Your task to perform on an android device: open a new tab in the chrome app Image 0: 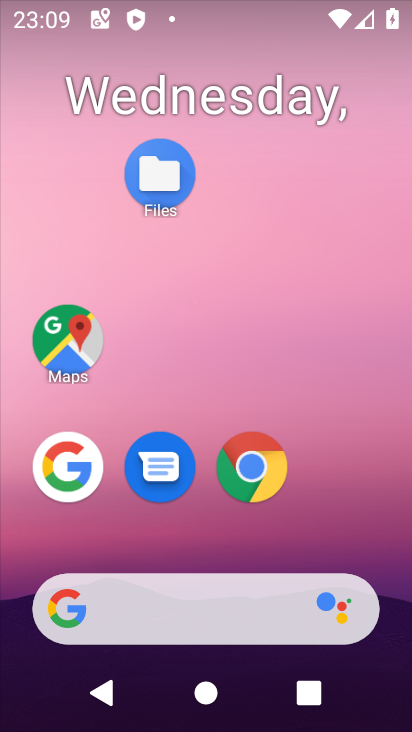
Step 0: click (263, 477)
Your task to perform on an android device: open a new tab in the chrome app Image 1: 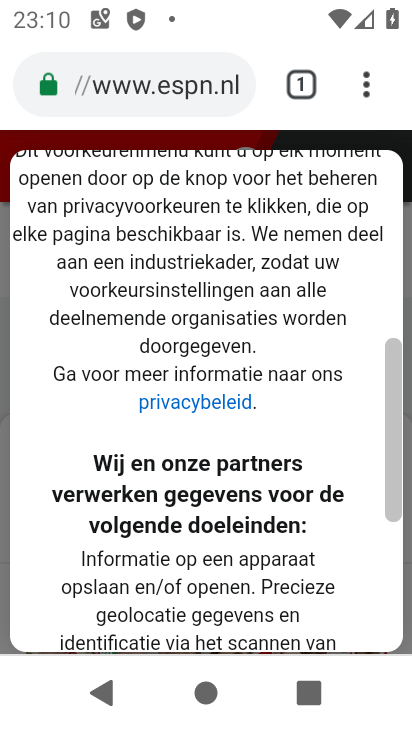
Step 1: click (308, 71)
Your task to perform on an android device: open a new tab in the chrome app Image 2: 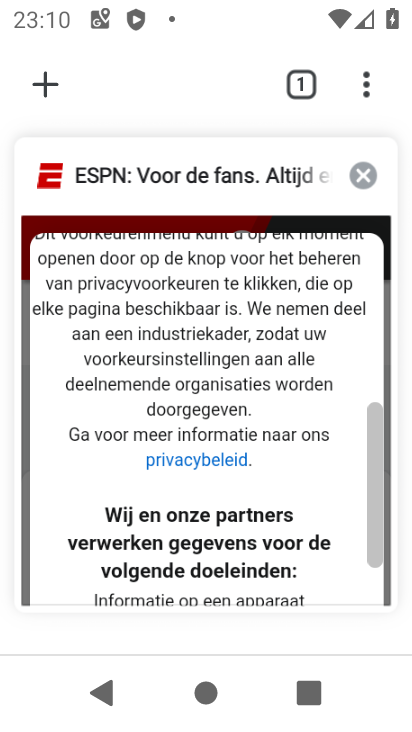
Step 2: click (35, 71)
Your task to perform on an android device: open a new tab in the chrome app Image 3: 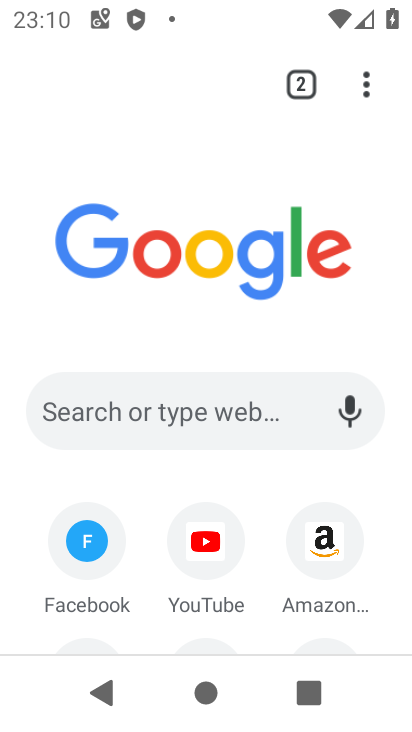
Step 3: task complete